Your task to perform on an android device: Do I have any events this weekend? Image 0: 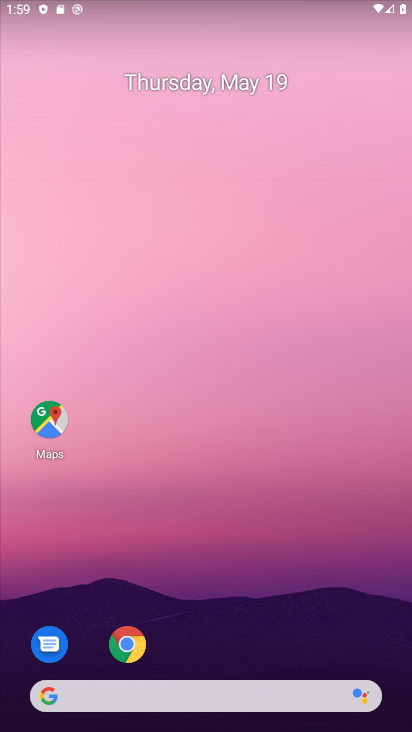
Step 0: drag from (288, 612) to (292, 292)
Your task to perform on an android device: Do I have any events this weekend? Image 1: 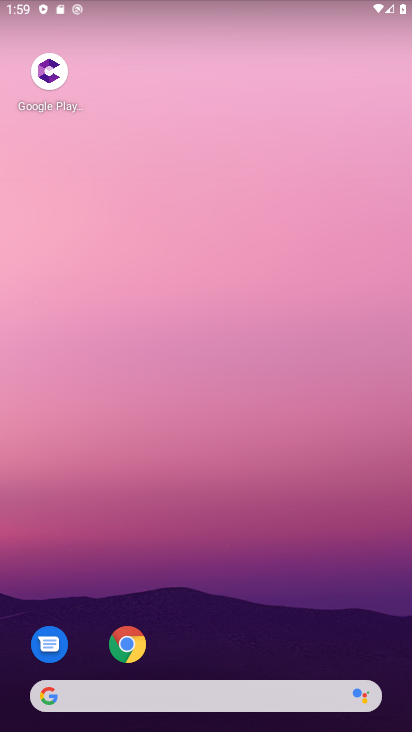
Step 1: drag from (260, 608) to (262, 203)
Your task to perform on an android device: Do I have any events this weekend? Image 2: 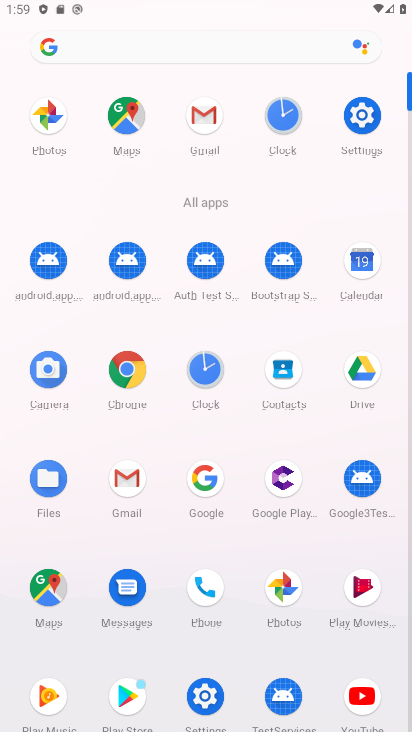
Step 2: click (361, 252)
Your task to perform on an android device: Do I have any events this weekend? Image 3: 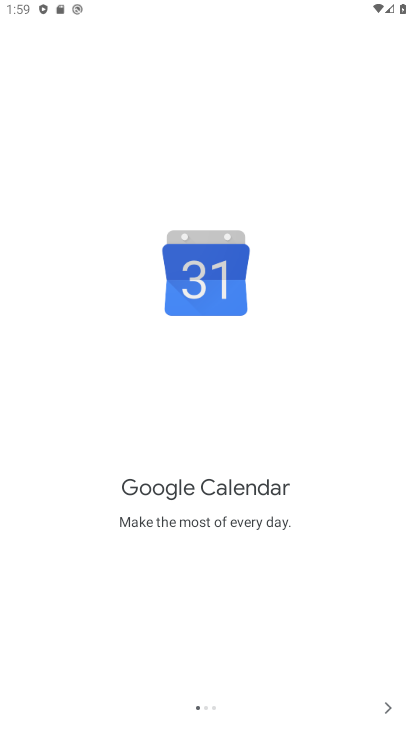
Step 3: click (382, 711)
Your task to perform on an android device: Do I have any events this weekend? Image 4: 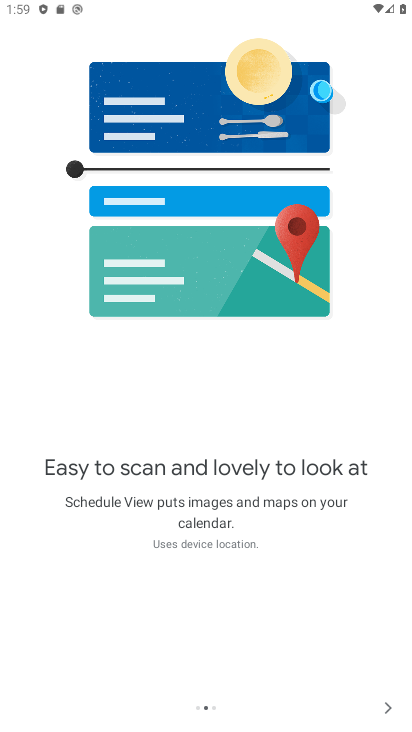
Step 4: click (376, 706)
Your task to perform on an android device: Do I have any events this weekend? Image 5: 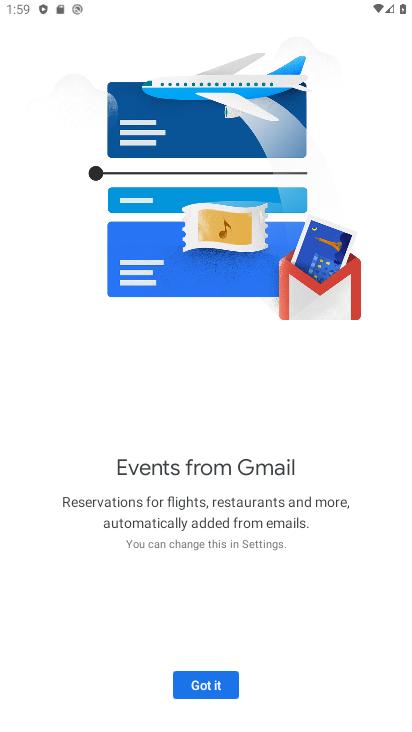
Step 5: click (376, 706)
Your task to perform on an android device: Do I have any events this weekend? Image 6: 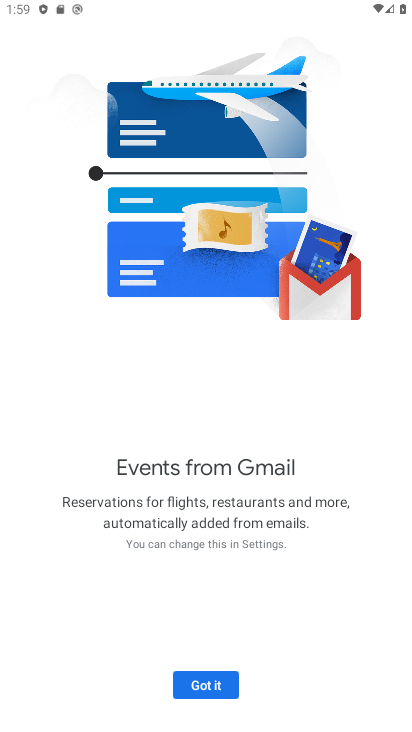
Step 6: click (216, 672)
Your task to perform on an android device: Do I have any events this weekend? Image 7: 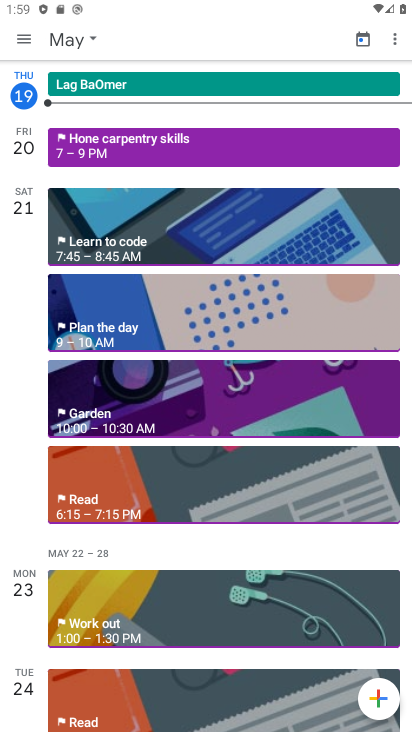
Step 7: task complete